Your task to perform on an android device: Clear all items from cart on costco. Image 0: 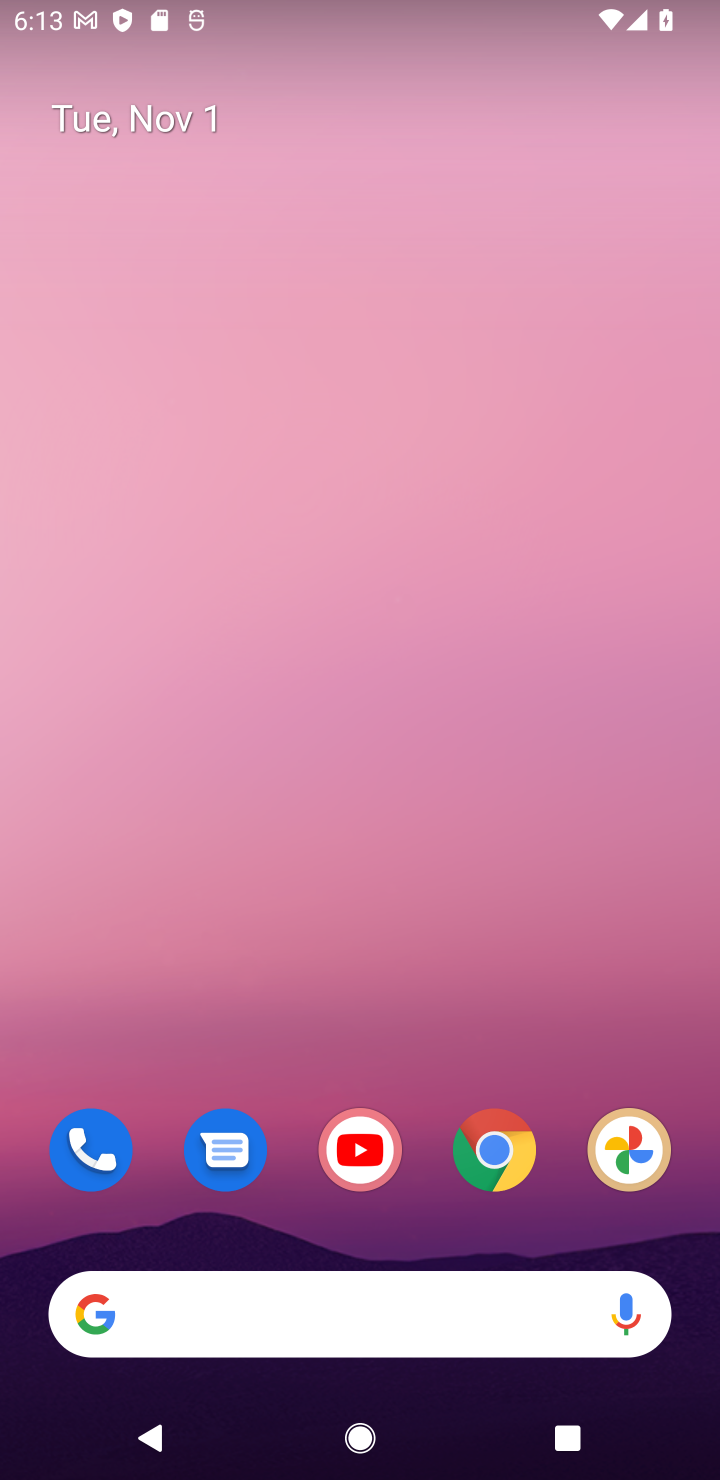
Step 0: click (497, 1148)
Your task to perform on an android device: Clear all items from cart on costco. Image 1: 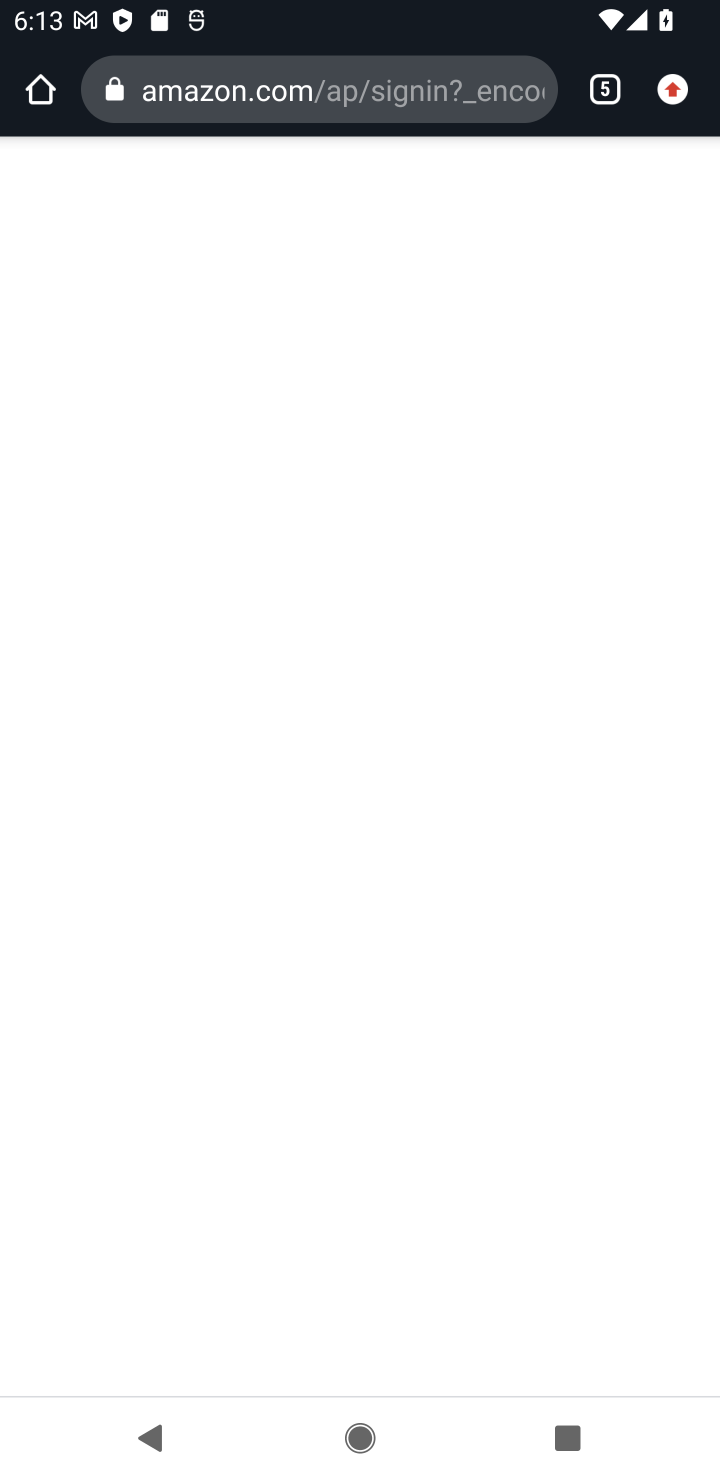
Step 1: click (612, 96)
Your task to perform on an android device: Clear all items from cart on costco. Image 2: 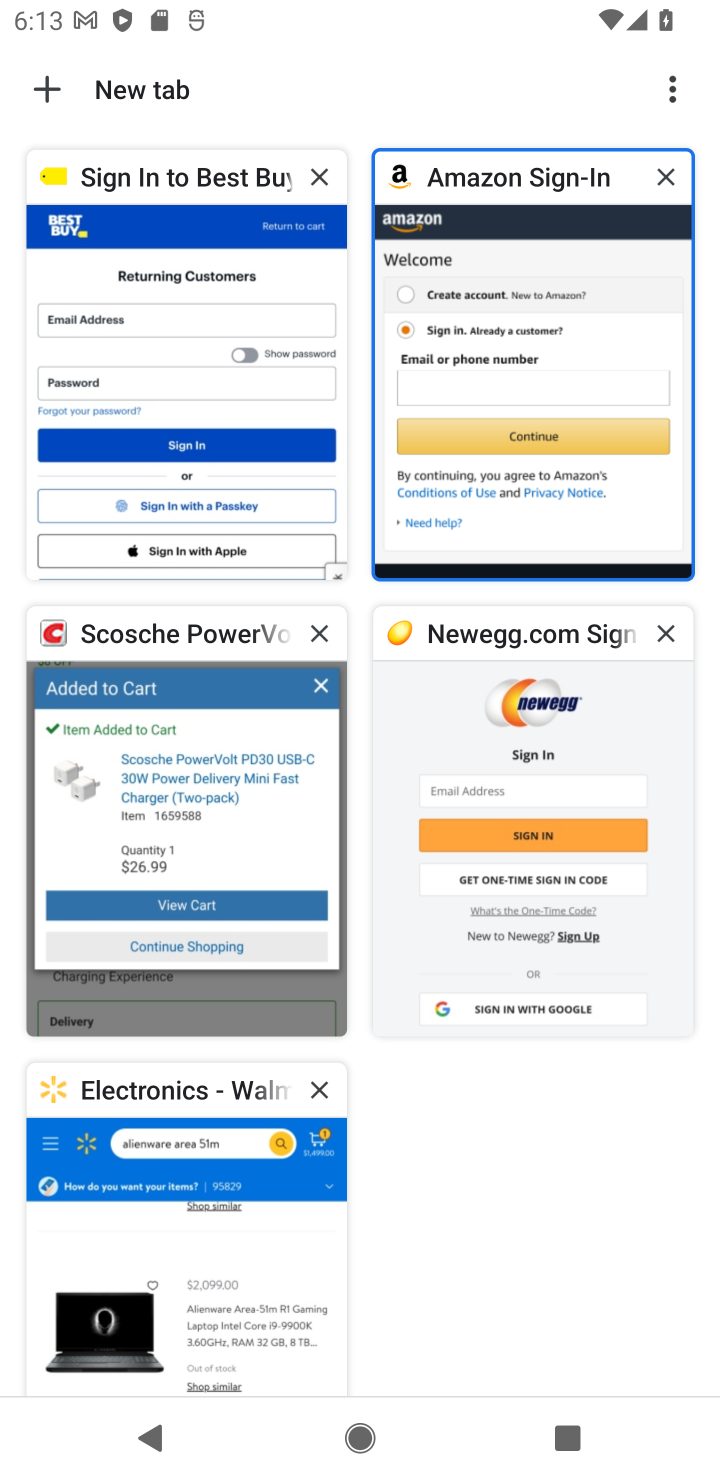
Step 2: click (180, 779)
Your task to perform on an android device: Clear all items from cart on costco. Image 3: 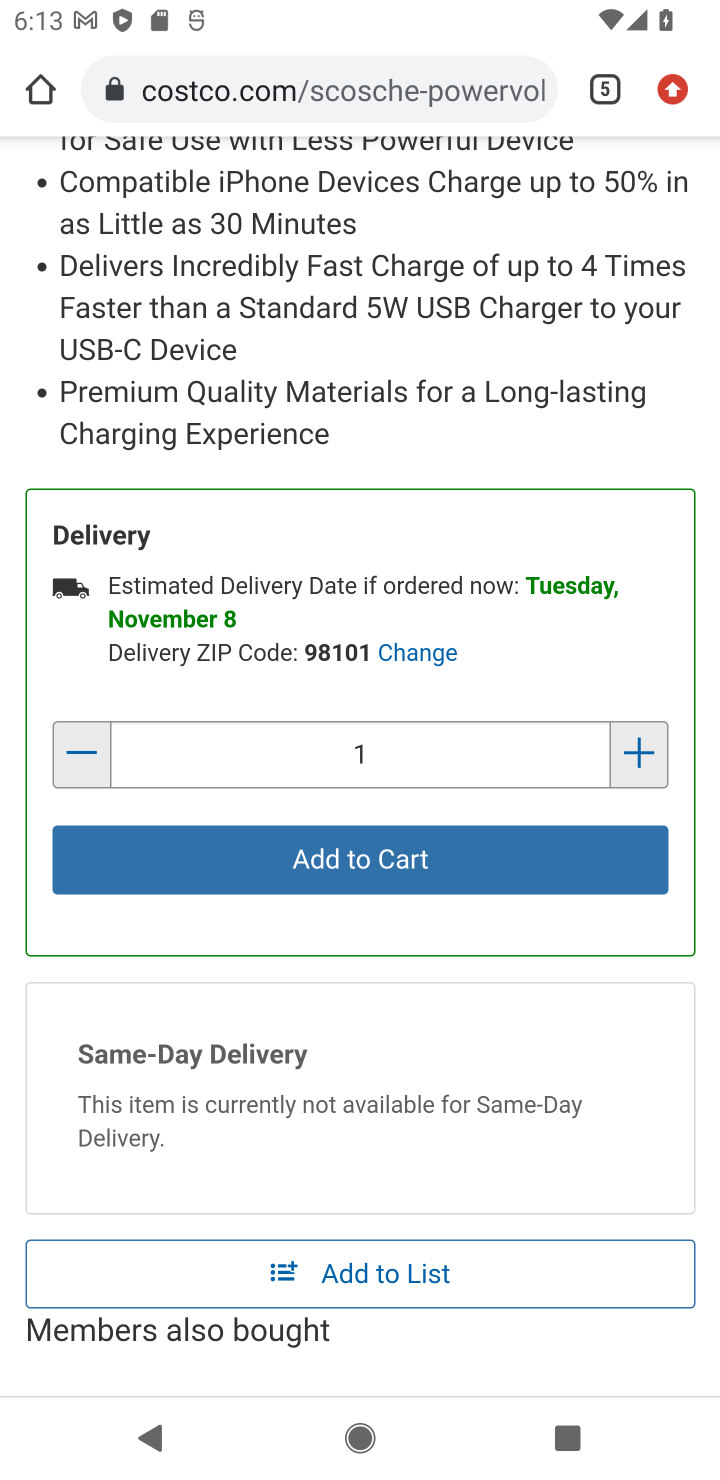
Step 3: drag from (488, 260) to (242, 1459)
Your task to perform on an android device: Clear all items from cart on costco. Image 4: 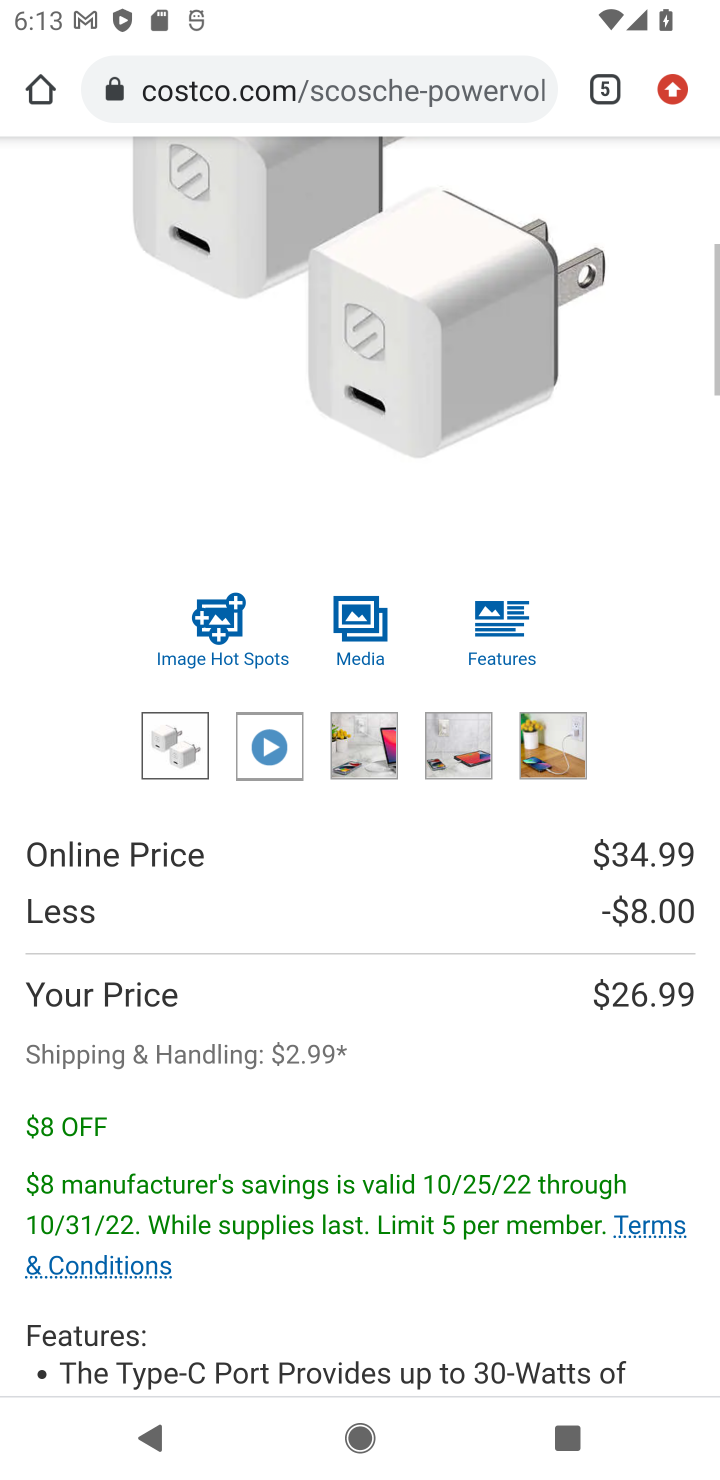
Step 4: drag from (487, 819) to (449, 1309)
Your task to perform on an android device: Clear all items from cart on costco. Image 5: 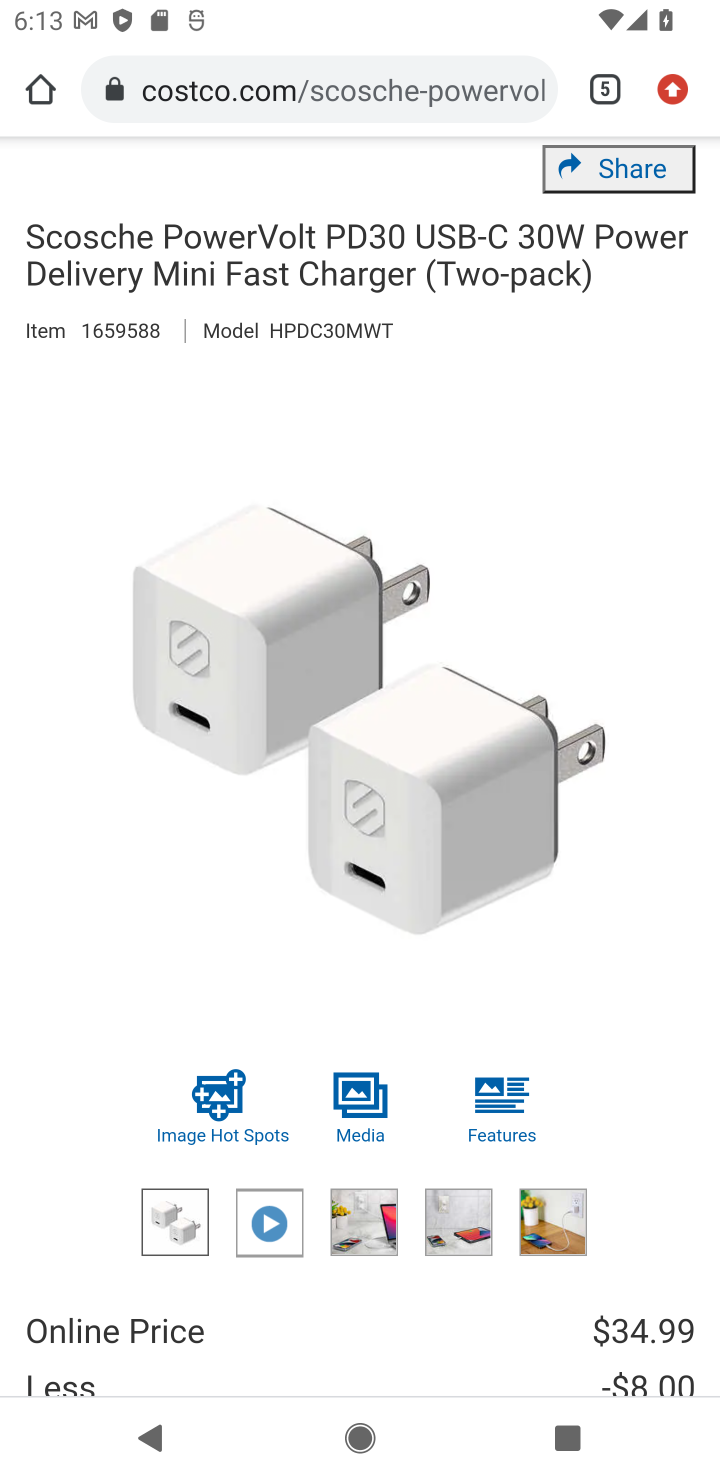
Step 5: drag from (424, 202) to (383, 1177)
Your task to perform on an android device: Clear all items from cart on costco. Image 6: 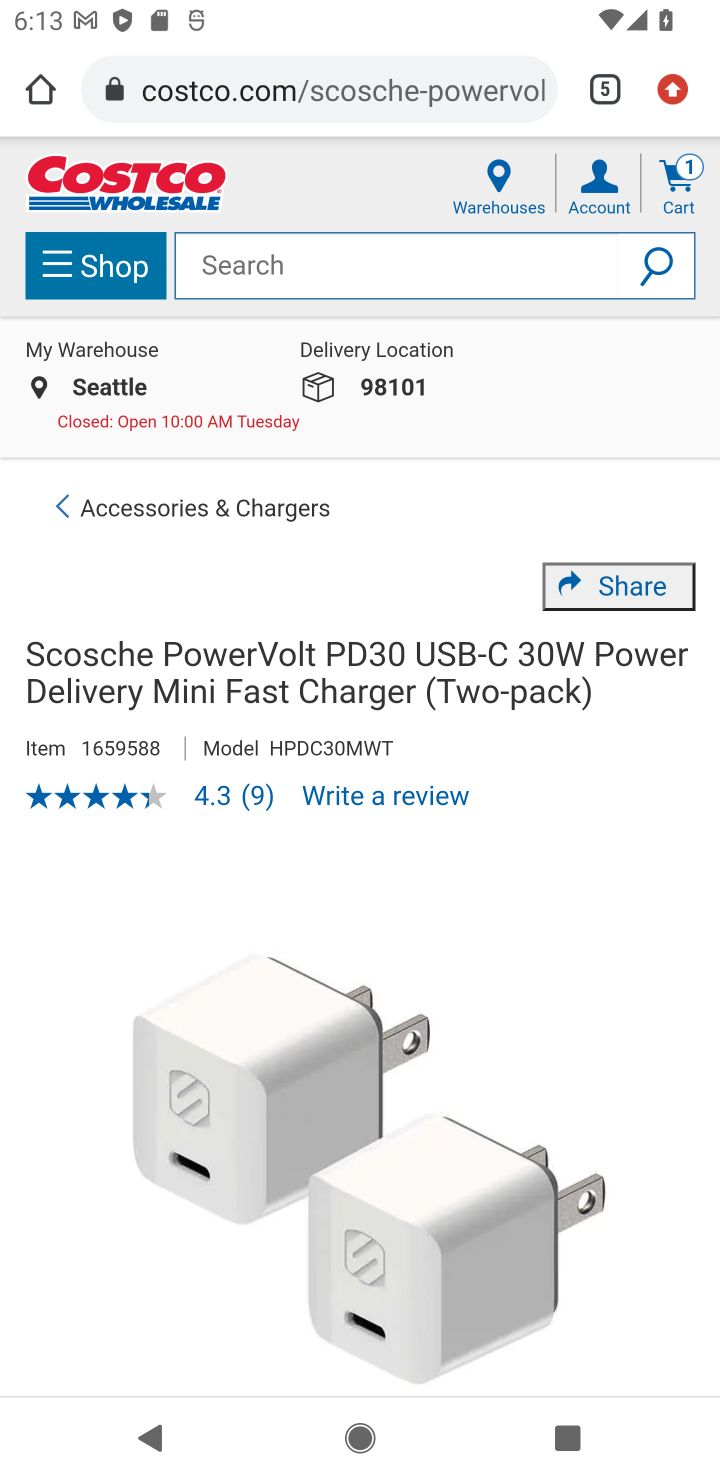
Step 6: click (673, 186)
Your task to perform on an android device: Clear all items from cart on costco. Image 7: 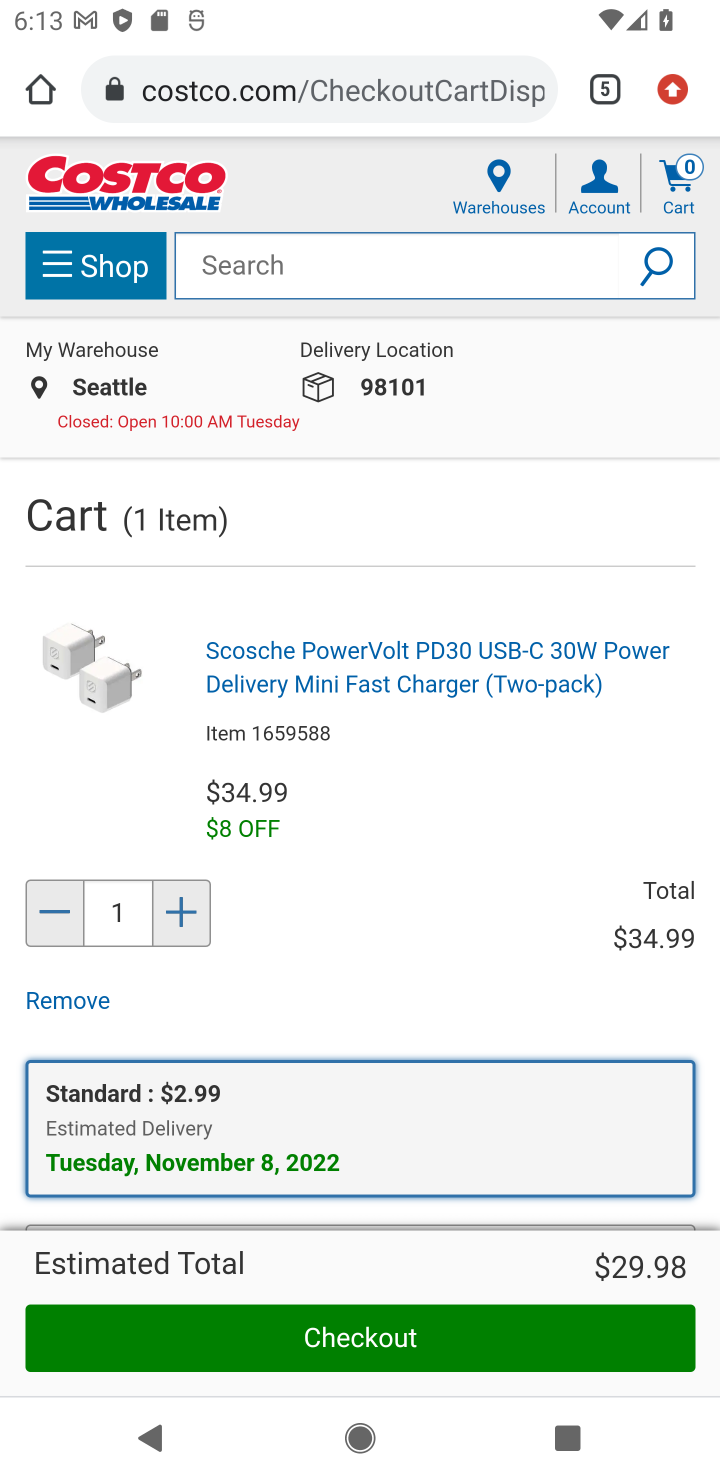
Step 7: click (79, 1005)
Your task to perform on an android device: Clear all items from cart on costco. Image 8: 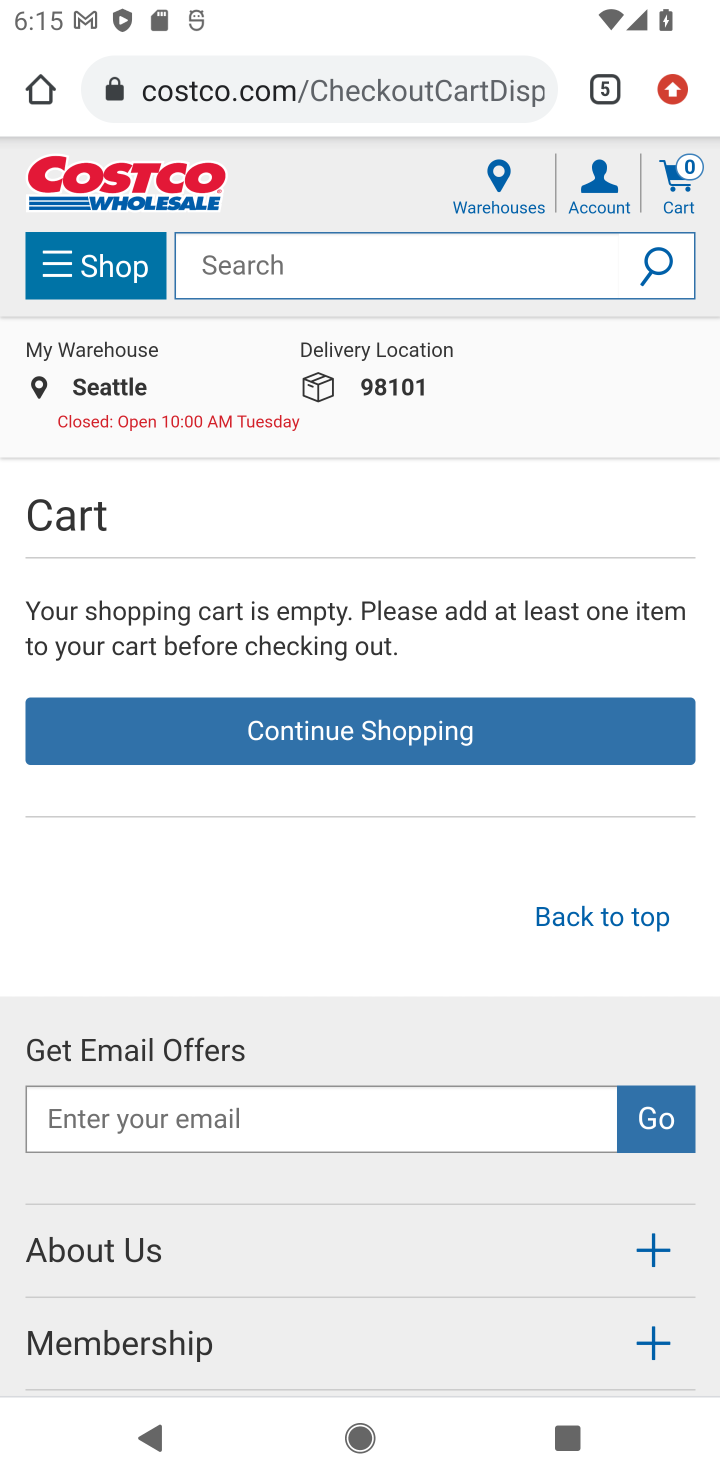
Step 8: task complete